Your task to perform on an android device: move an email to a new category in the gmail app Image 0: 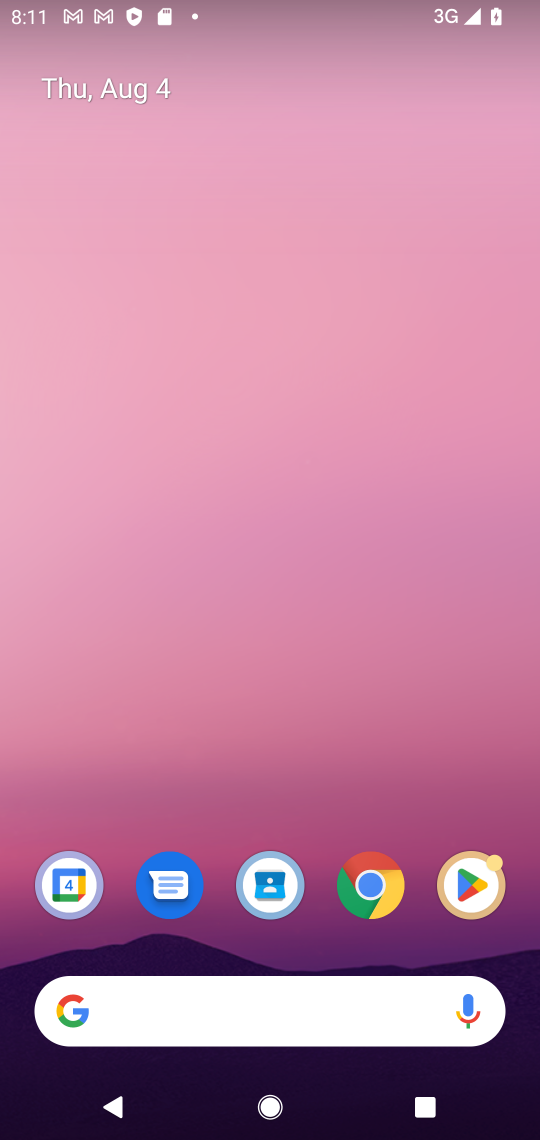
Step 0: press home button
Your task to perform on an android device: move an email to a new category in the gmail app Image 1: 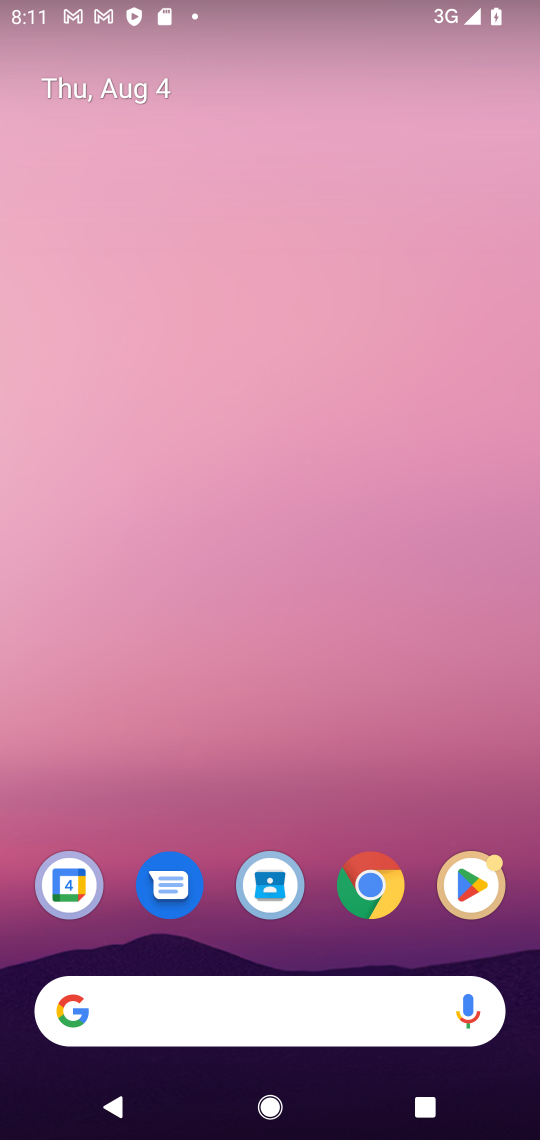
Step 1: press home button
Your task to perform on an android device: move an email to a new category in the gmail app Image 2: 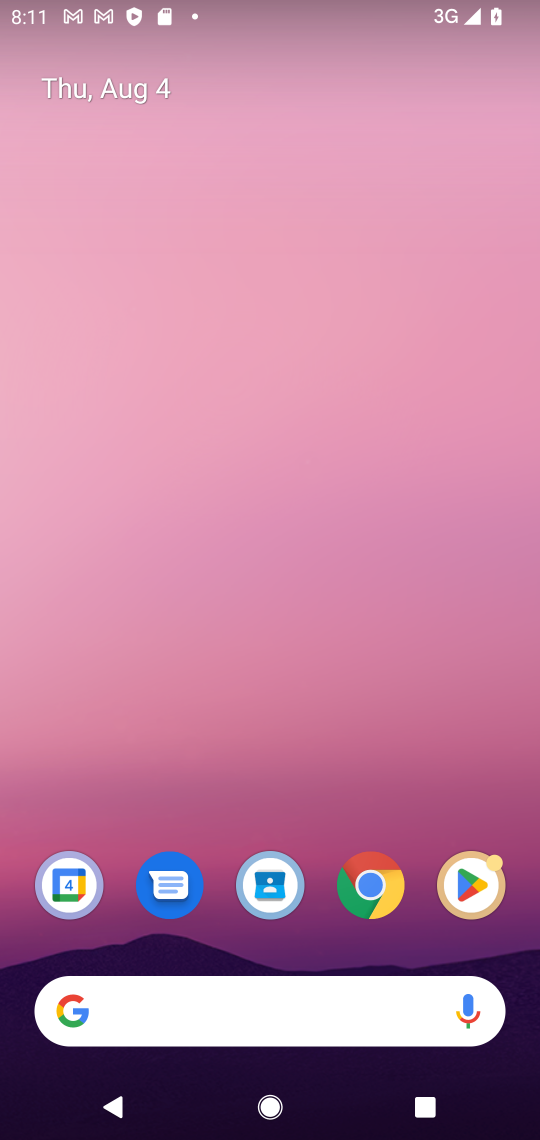
Step 2: drag from (325, 1043) to (260, 20)
Your task to perform on an android device: move an email to a new category in the gmail app Image 3: 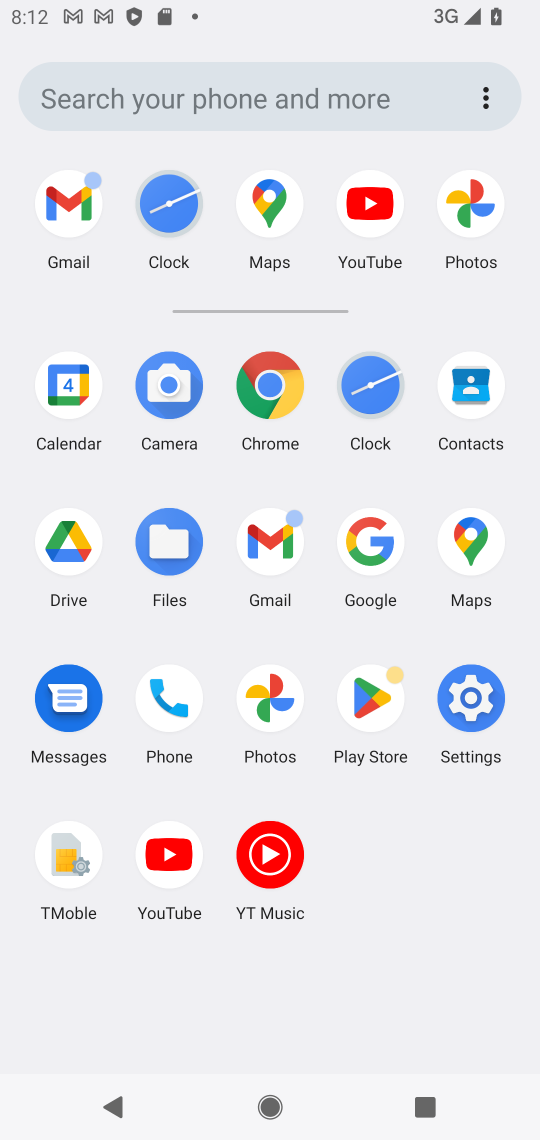
Step 3: click (284, 532)
Your task to perform on an android device: move an email to a new category in the gmail app Image 4: 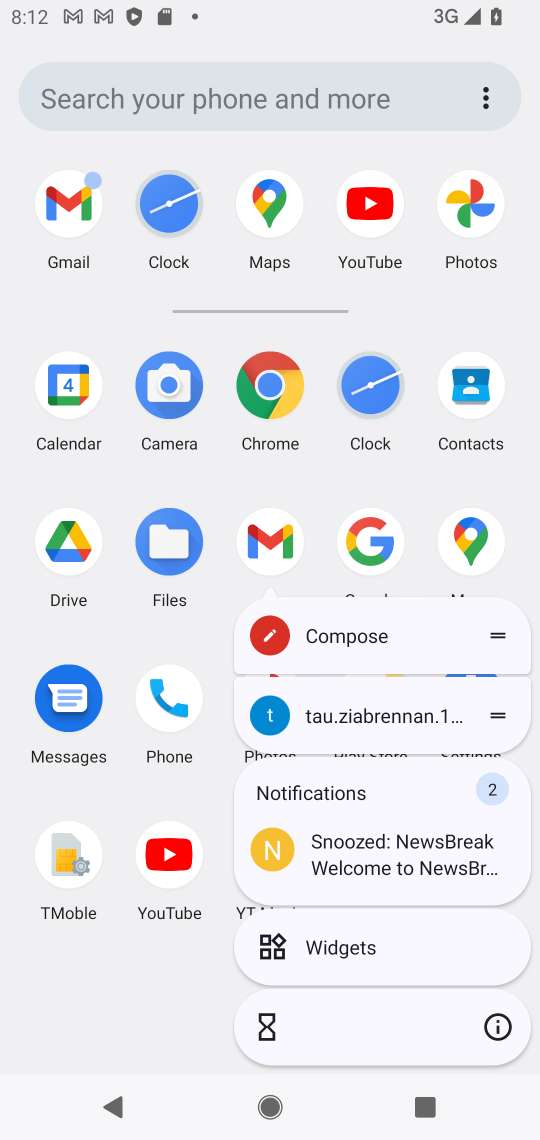
Step 4: click (284, 532)
Your task to perform on an android device: move an email to a new category in the gmail app Image 5: 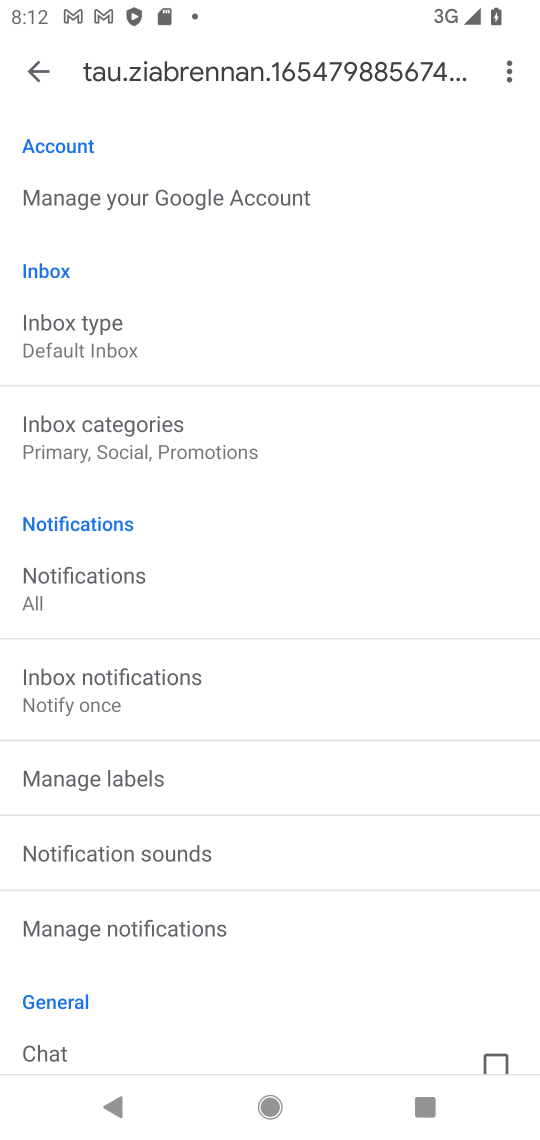
Step 5: click (35, 69)
Your task to perform on an android device: move an email to a new category in the gmail app Image 6: 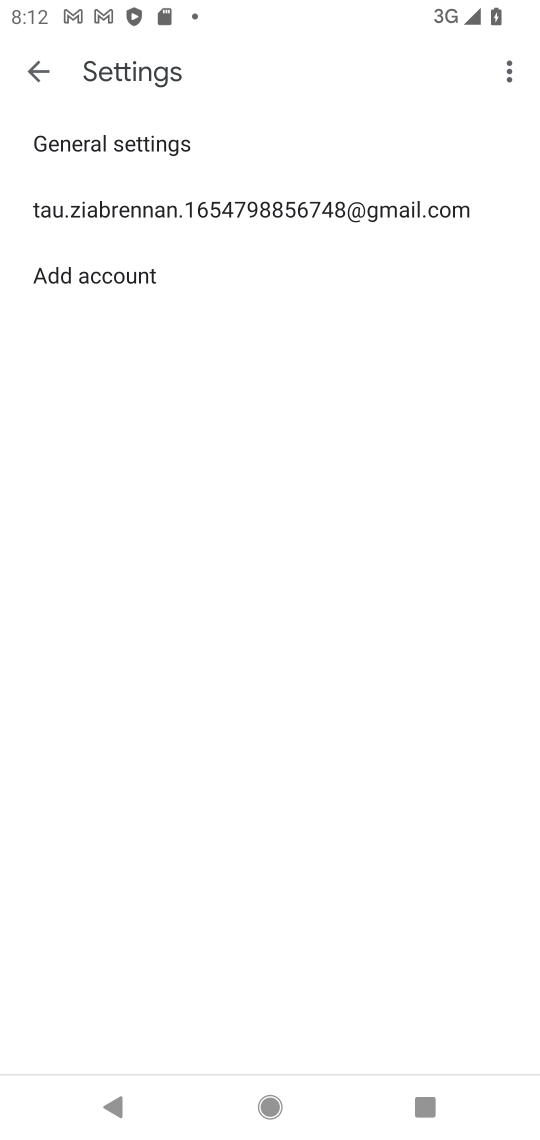
Step 6: click (35, 69)
Your task to perform on an android device: move an email to a new category in the gmail app Image 7: 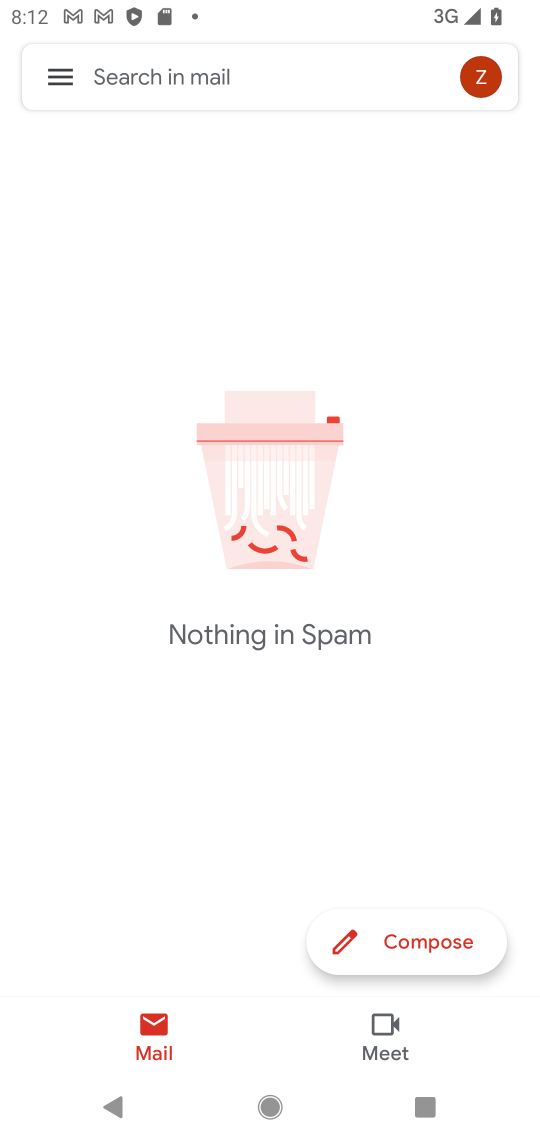
Step 7: click (35, 69)
Your task to perform on an android device: move an email to a new category in the gmail app Image 8: 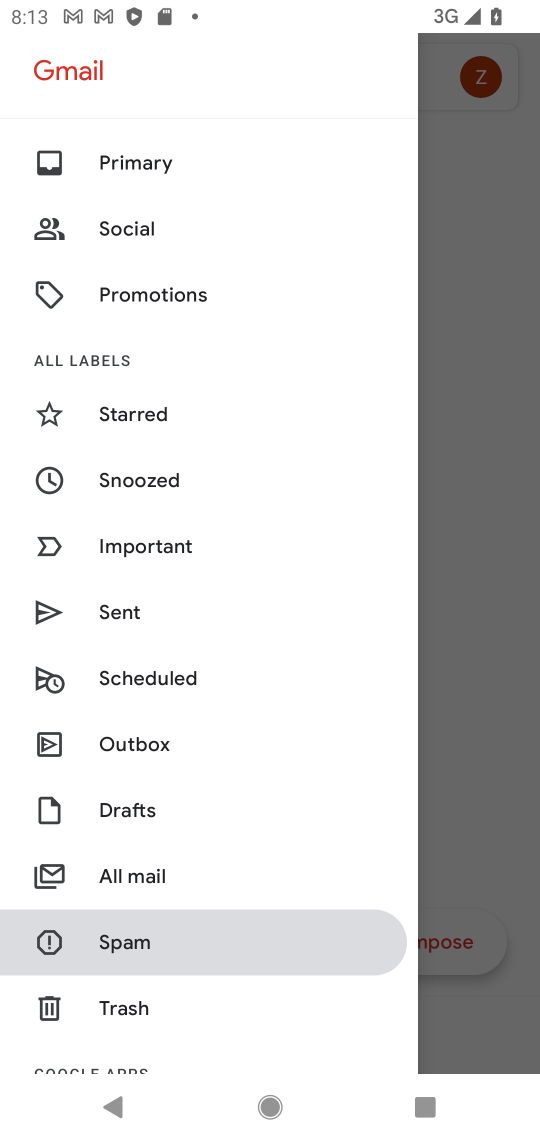
Step 8: task complete